Your task to perform on an android device: Open network settings Image 0: 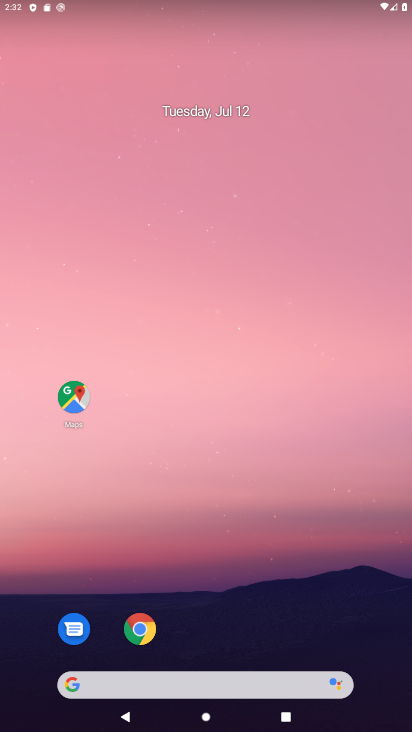
Step 0: drag from (202, 428) to (218, 121)
Your task to perform on an android device: Open network settings Image 1: 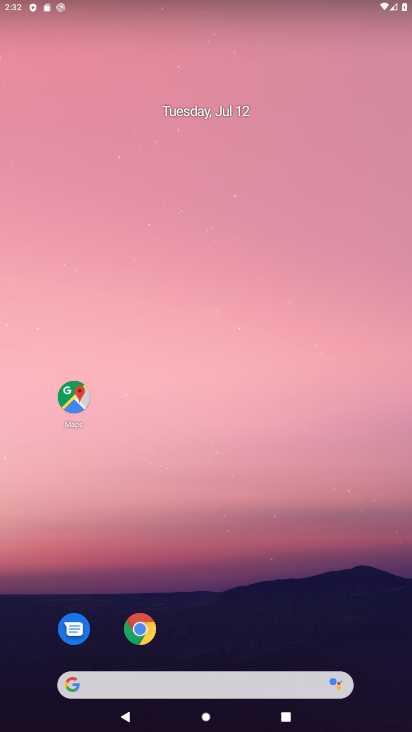
Step 1: drag from (223, 635) to (259, 113)
Your task to perform on an android device: Open network settings Image 2: 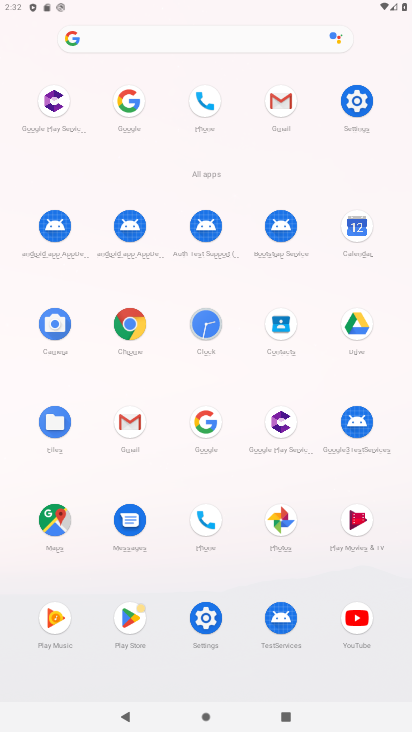
Step 2: click (356, 99)
Your task to perform on an android device: Open network settings Image 3: 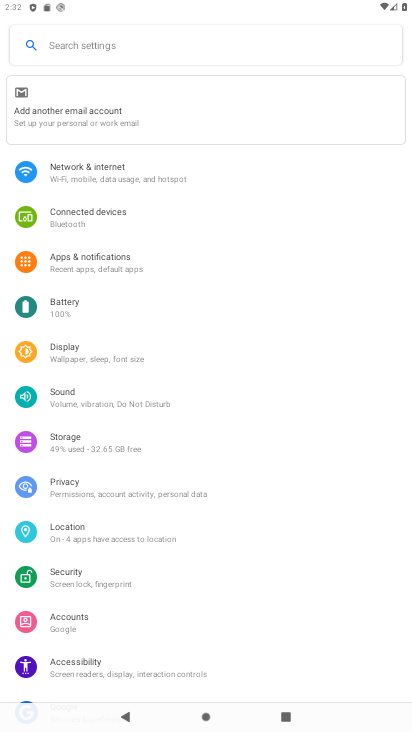
Step 3: click (92, 169)
Your task to perform on an android device: Open network settings Image 4: 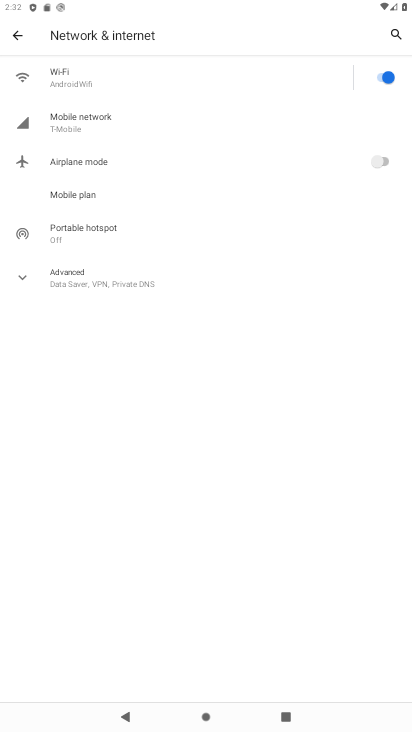
Step 4: click (90, 129)
Your task to perform on an android device: Open network settings Image 5: 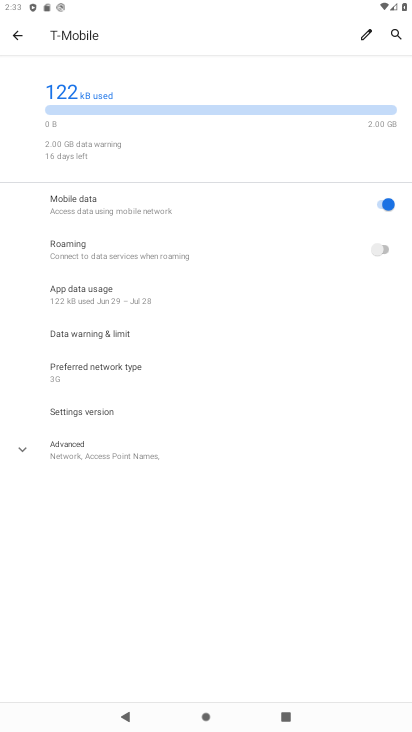
Step 5: task complete